Your task to perform on an android device: clear history in the chrome app Image 0: 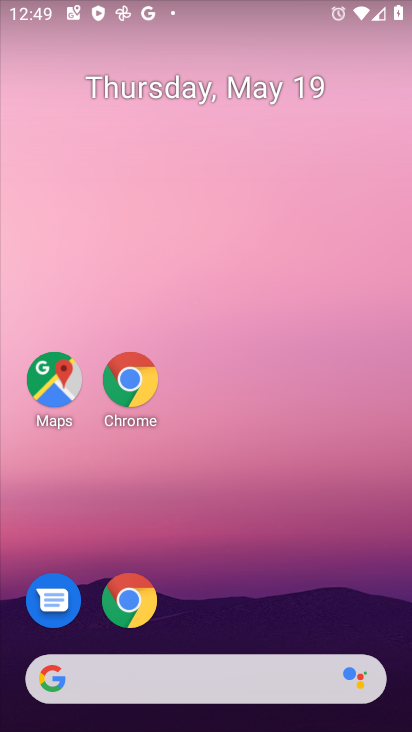
Step 0: drag from (248, 575) to (214, 168)
Your task to perform on an android device: clear history in the chrome app Image 1: 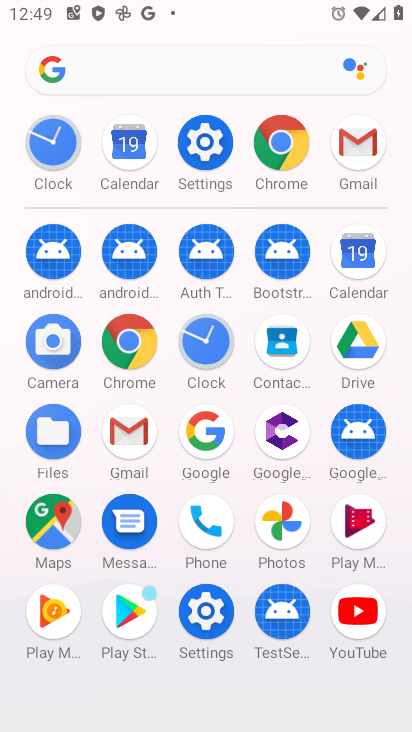
Step 1: click (280, 141)
Your task to perform on an android device: clear history in the chrome app Image 2: 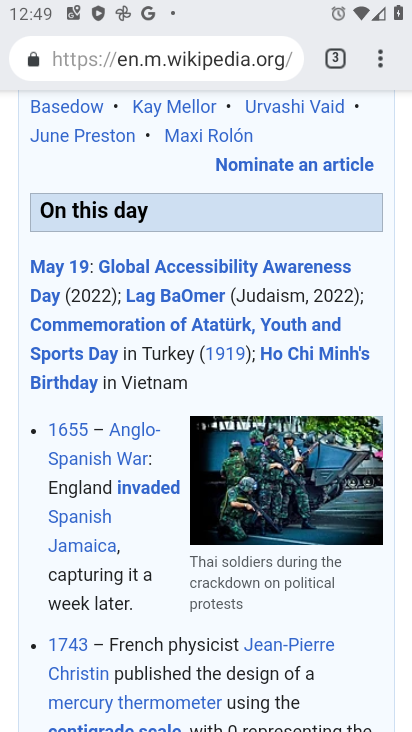
Step 2: click (380, 57)
Your task to perform on an android device: clear history in the chrome app Image 3: 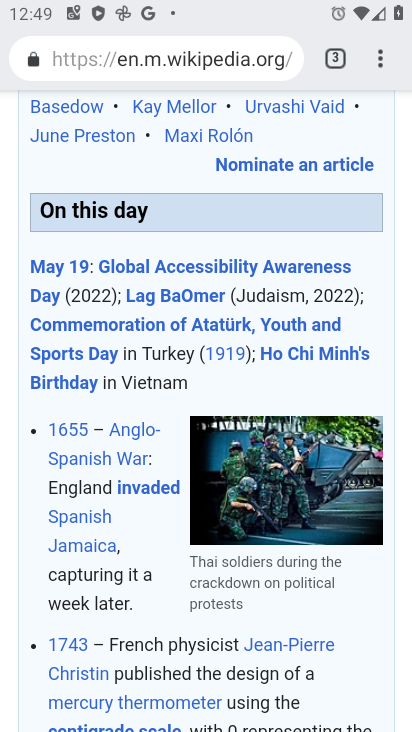
Step 3: click (375, 56)
Your task to perform on an android device: clear history in the chrome app Image 4: 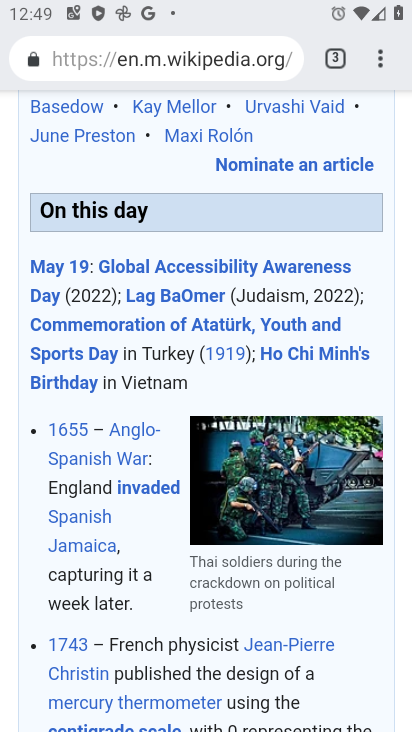
Step 4: drag from (382, 60) to (161, 329)
Your task to perform on an android device: clear history in the chrome app Image 5: 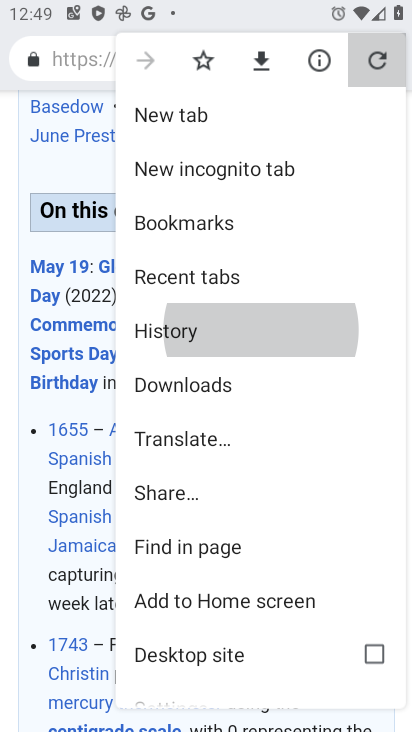
Step 5: click (156, 328)
Your task to perform on an android device: clear history in the chrome app Image 6: 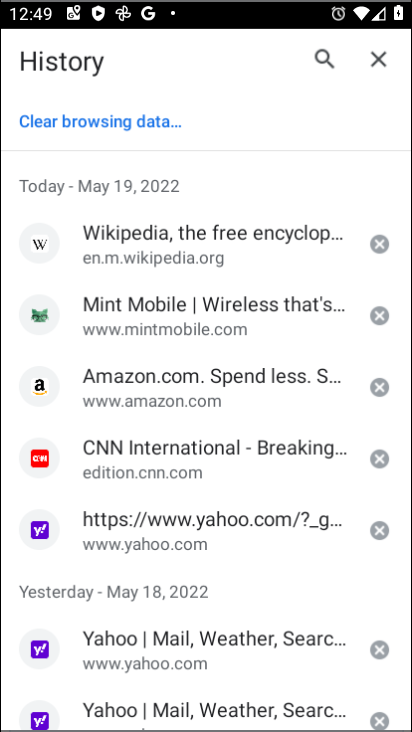
Step 6: click (156, 328)
Your task to perform on an android device: clear history in the chrome app Image 7: 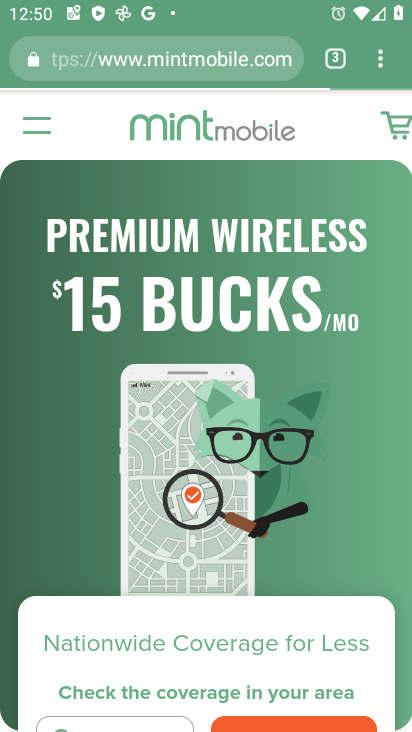
Step 7: click (373, 60)
Your task to perform on an android device: clear history in the chrome app Image 8: 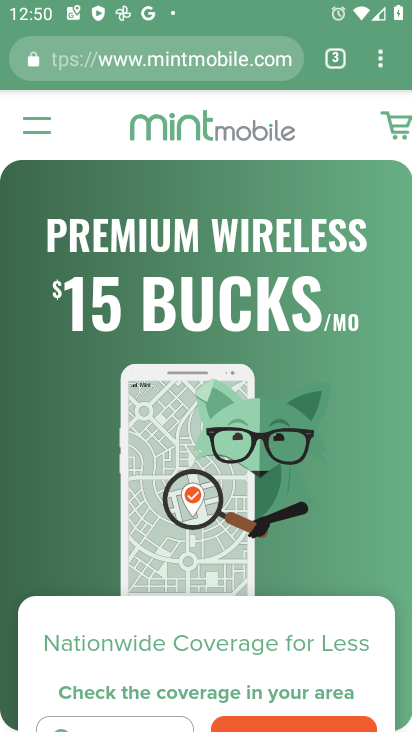
Step 8: click (380, 66)
Your task to perform on an android device: clear history in the chrome app Image 9: 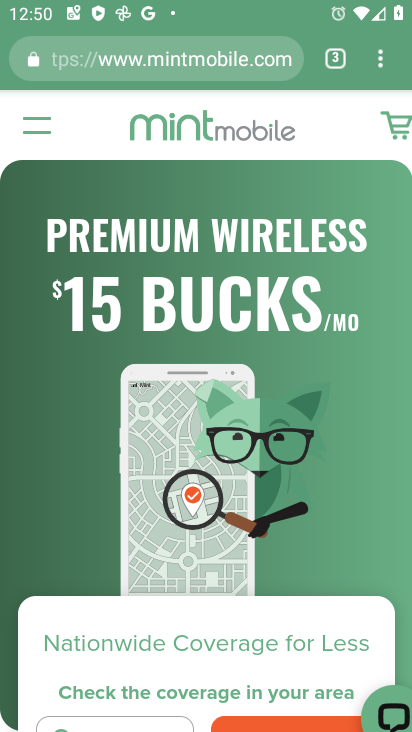
Step 9: click (377, 66)
Your task to perform on an android device: clear history in the chrome app Image 10: 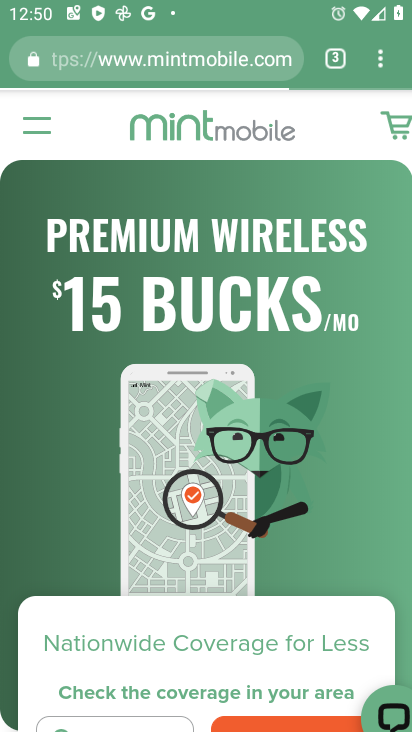
Step 10: drag from (376, 66) to (176, 491)
Your task to perform on an android device: clear history in the chrome app Image 11: 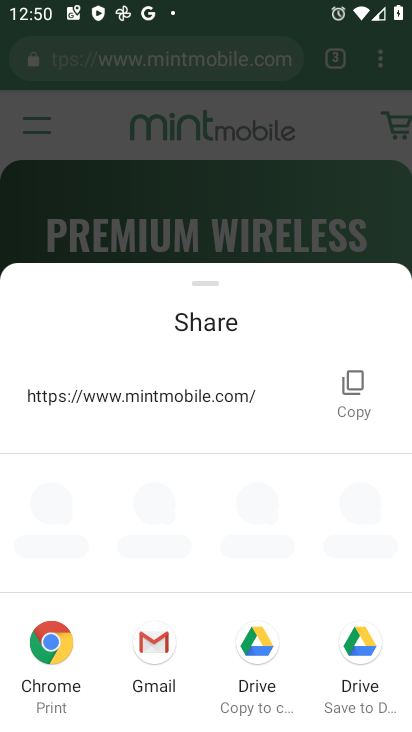
Step 11: click (372, 62)
Your task to perform on an android device: clear history in the chrome app Image 12: 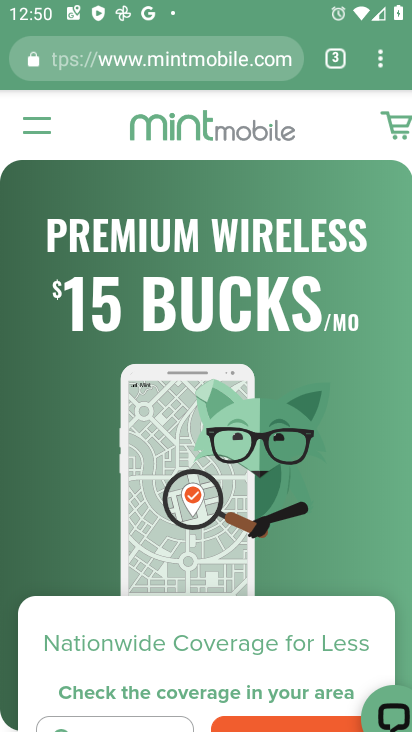
Step 12: drag from (380, 61) to (174, 337)
Your task to perform on an android device: clear history in the chrome app Image 13: 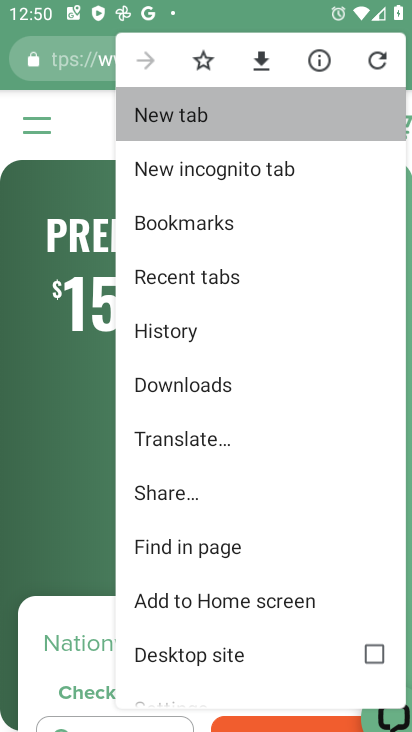
Step 13: drag from (338, 93) to (174, 337)
Your task to perform on an android device: clear history in the chrome app Image 14: 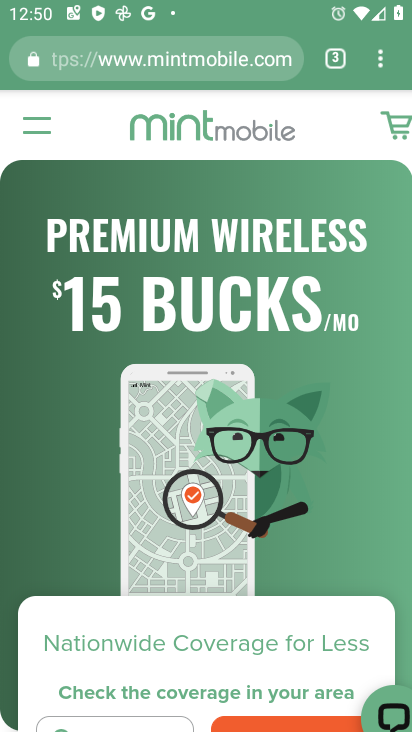
Step 14: click (185, 334)
Your task to perform on an android device: clear history in the chrome app Image 15: 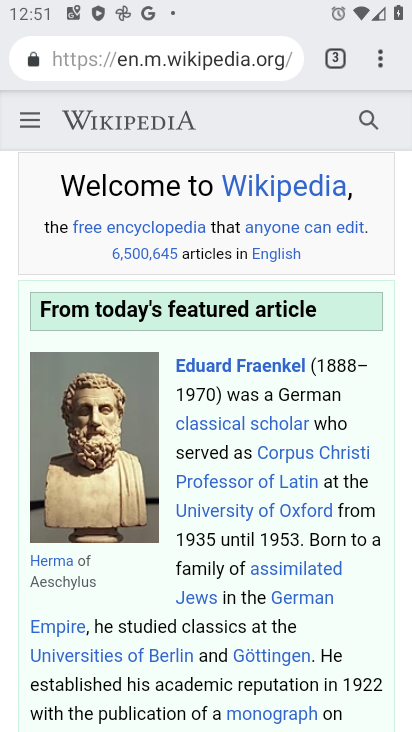
Step 15: click (380, 60)
Your task to perform on an android device: clear history in the chrome app Image 16: 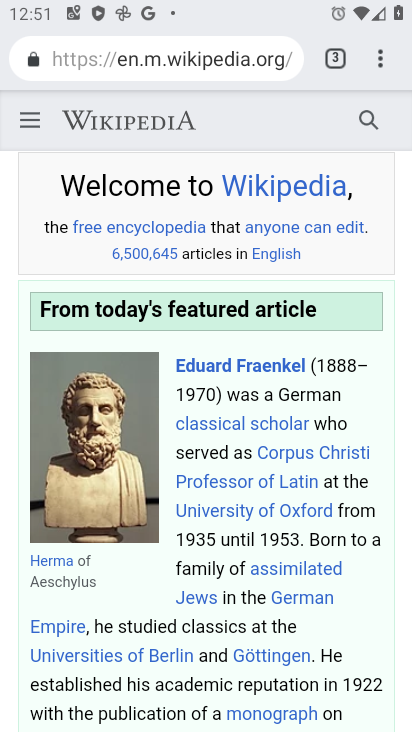
Step 16: drag from (380, 61) to (160, 336)
Your task to perform on an android device: clear history in the chrome app Image 17: 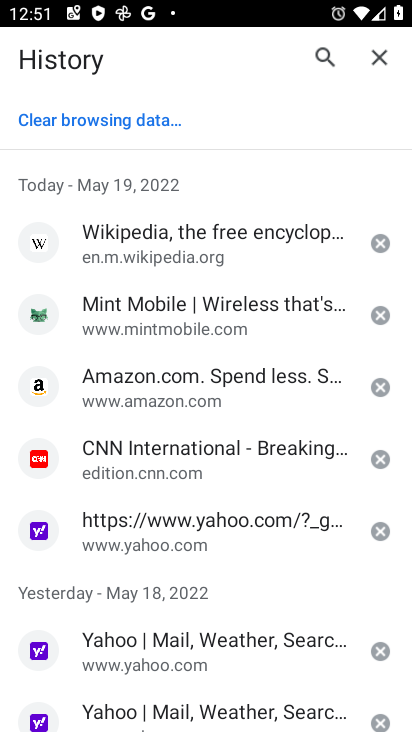
Step 17: click (173, 337)
Your task to perform on an android device: clear history in the chrome app Image 18: 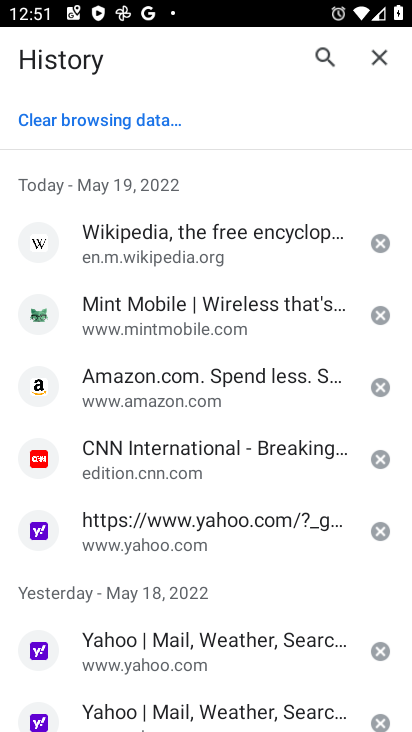
Step 18: click (174, 336)
Your task to perform on an android device: clear history in the chrome app Image 19: 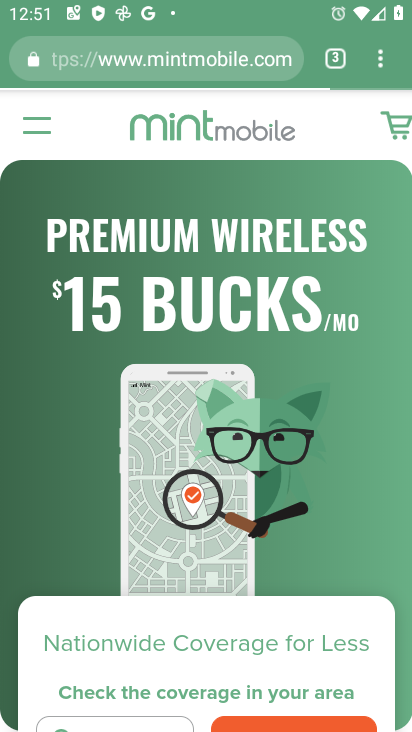
Step 19: task complete